Your task to perform on an android device: Go to privacy settings Image 0: 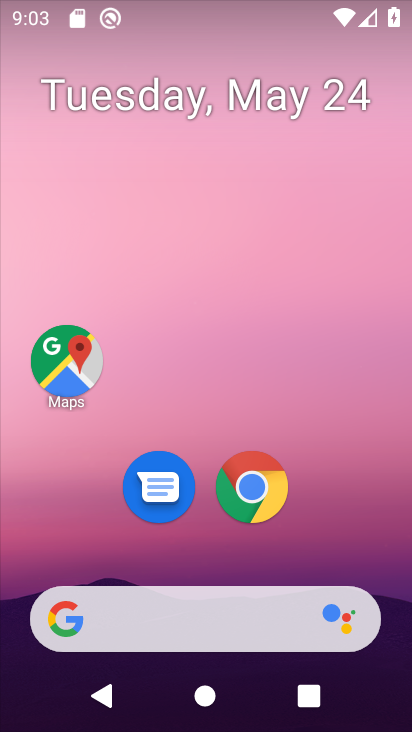
Step 0: press home button
Your task to perform on an android device: Go to privacy settings Image 1: 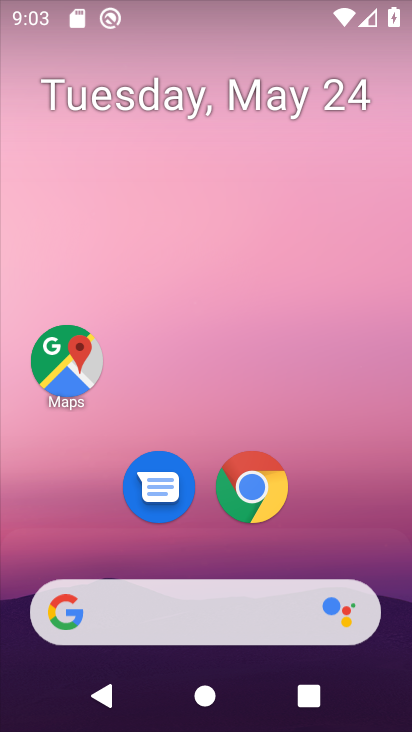
Step 1: drag from (197, 615) to (290, 134)
Your task to perform on an android device: Go to privacy settings Image 2: 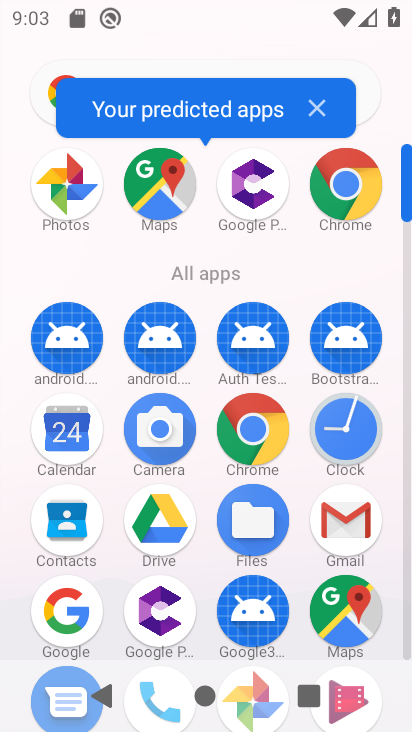
Step 2: drag from (209, 591) to (374, 118)
Your task to perform on an android device: Go to privacy settings Image 3: 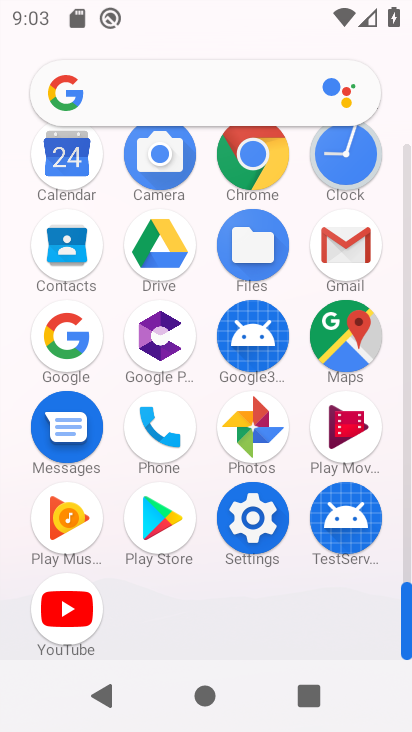
Step 3: click (253, 527)
Your task to perform on an android device: Go to privacy settings Image 4: 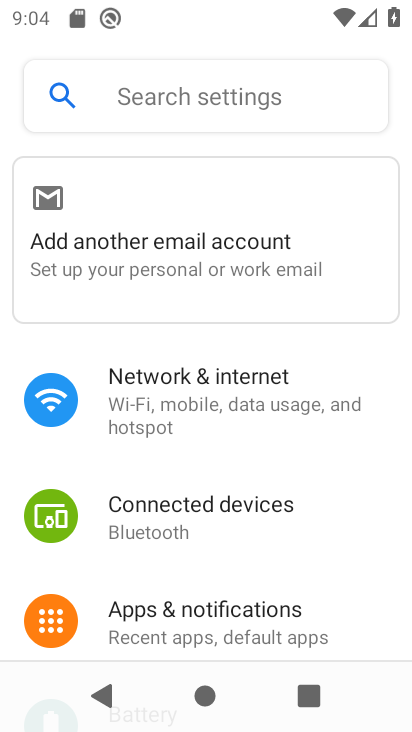
Step 4: drag from (243, 581) to (321, 89)
Your task to perform on an android device: Go to privacy settings Image 5: 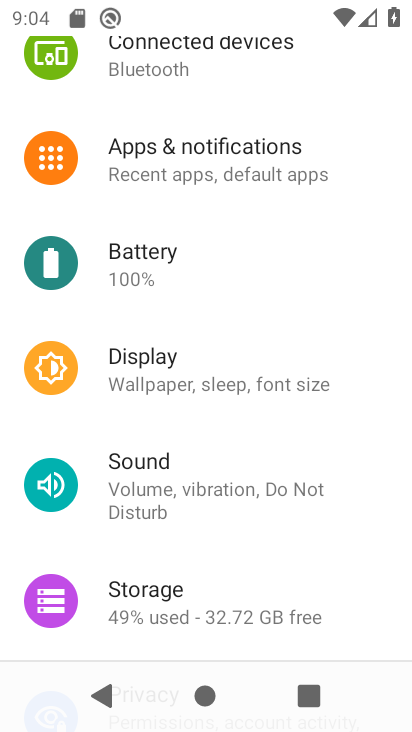
Step 5: drag from (222, 567) to (317, 148)
Your task to perform on an android device: Go to privacy settings Image 6: 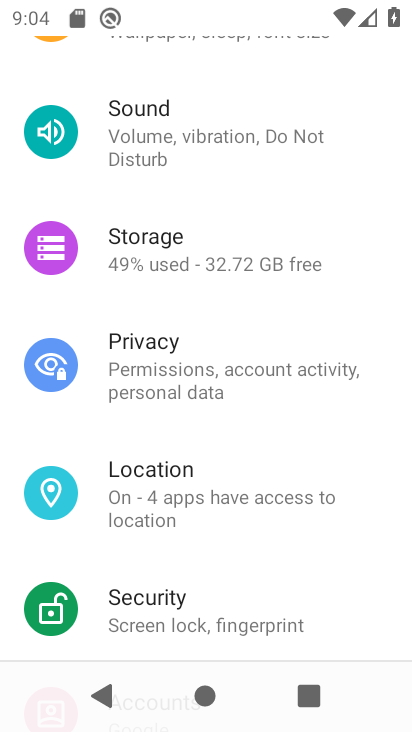
Step 6: click (152, 347)
Your task to perform on an android device: Go to privacy settings Image 7: 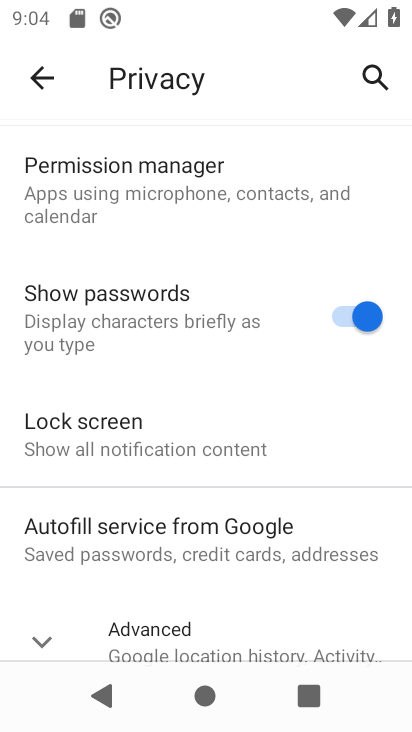
Step 7: task complete